Your task to perform on an android device: turn off javascript in the chrome app Image 0: 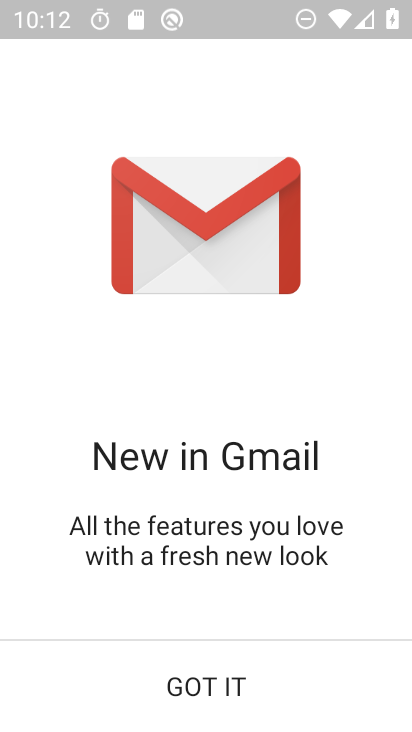
Step 0: click (275, 675)
Your task to perform on an android device: turn off javascript in the chrome app Image 1: 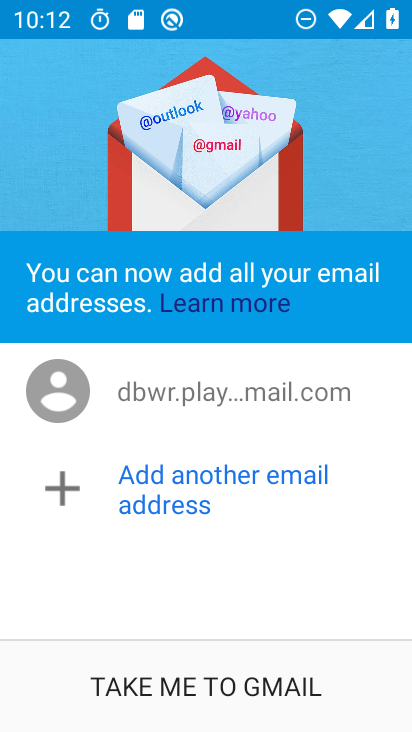
Step 1: press home button
Your task to perform on an android device: turn off javascript in the chrome app Image 2: 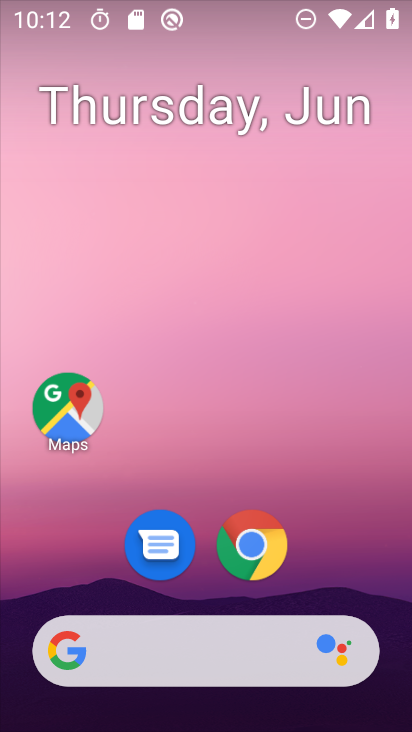
Step 2: click (250, 527)
Your task to perform on an android device: turn off javascript in the chrome app Image 3: 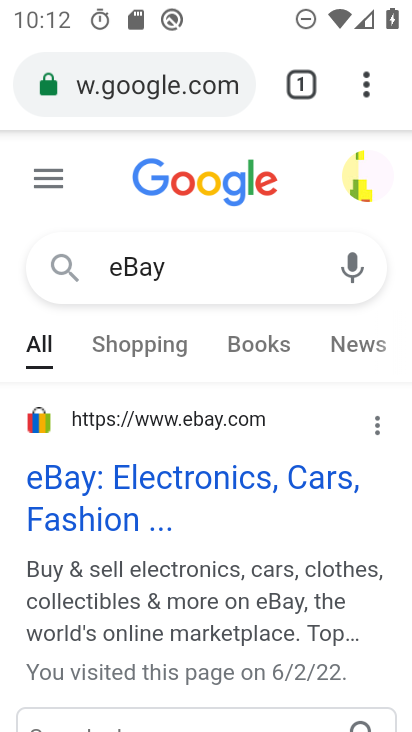
Step 3: click (368, 81)
Your task to perform on an android device: turn off javascript in the chrome app Image 4: 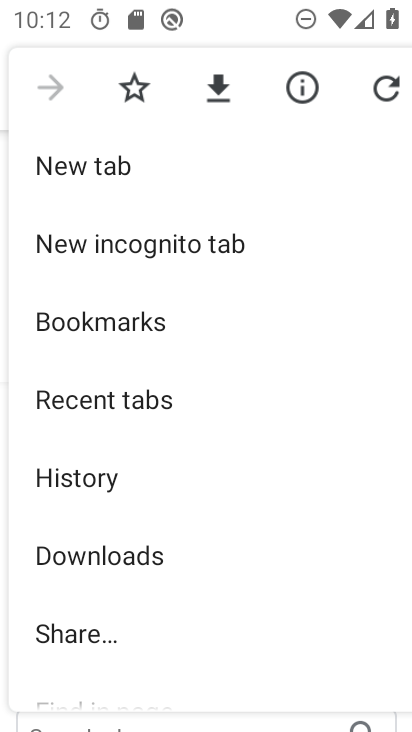
Step 4: drag from (164, 600) to (230, 178)
Your task to perform on an android device: turn off javascript in the chrome app Image 5: 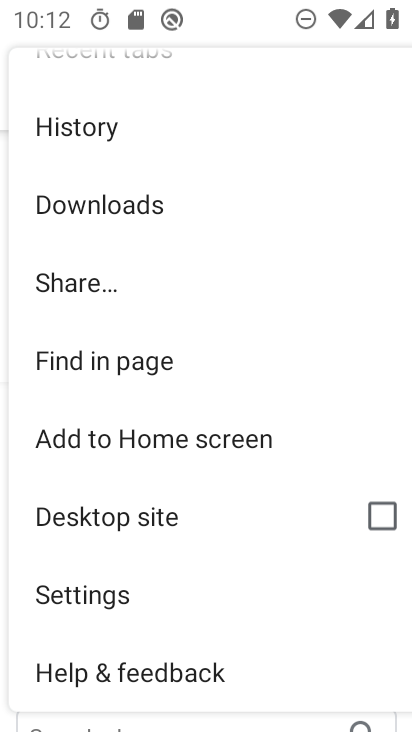
Step 5: click (111, 612)
Your task to perform on an android device: turn off javascript in the chrome app Image 6: 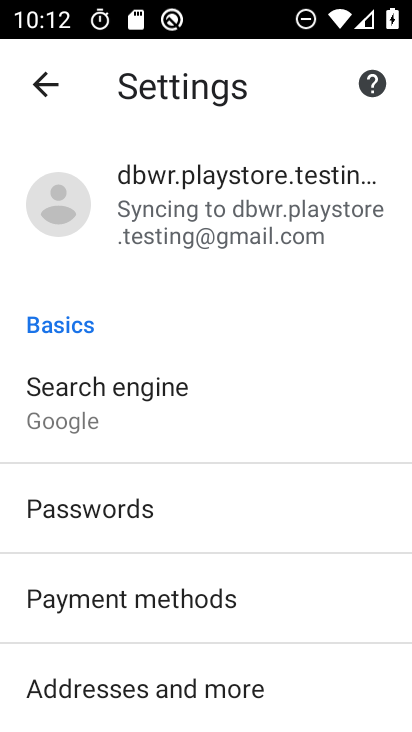
Step 6: drag from (181, 561) to (233, 141)
Your task to perform on an android device: turn off javascript in the chrome app Image 7: 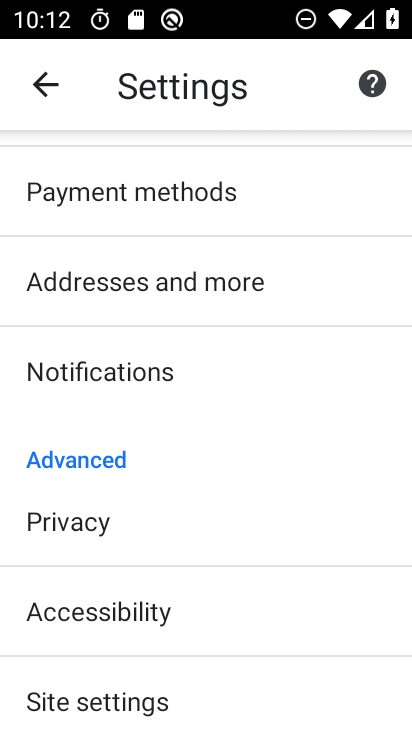
Step 7: drag from (144, 631) to (179, 398)
Your task to perform on an android device: turn off javascript in the chrome app Image 8: 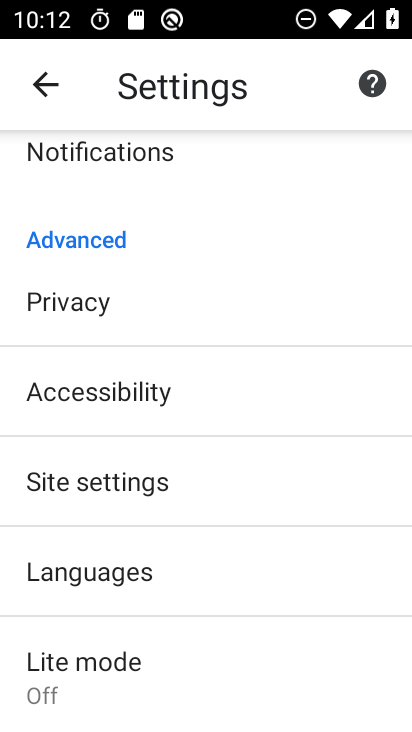
Step 8: click (126, 470)
Your task to perform on an android device: turn off javascript in the chrome app Image 9: 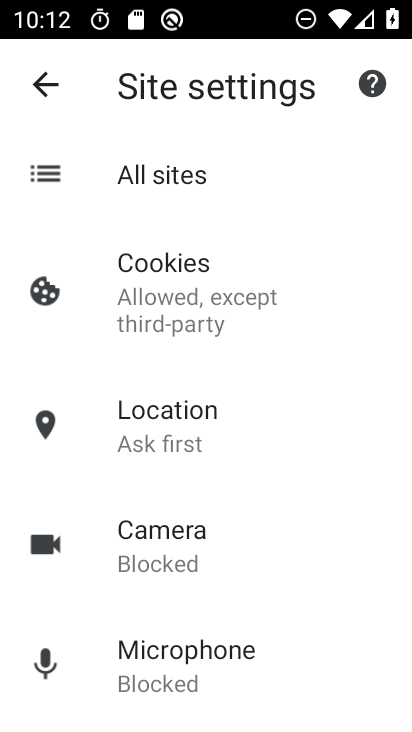
Step 9: drag from (210, 592) to (279, 194)
Your task to perform on an android device: turn off javascript in the chrome app Image 10: 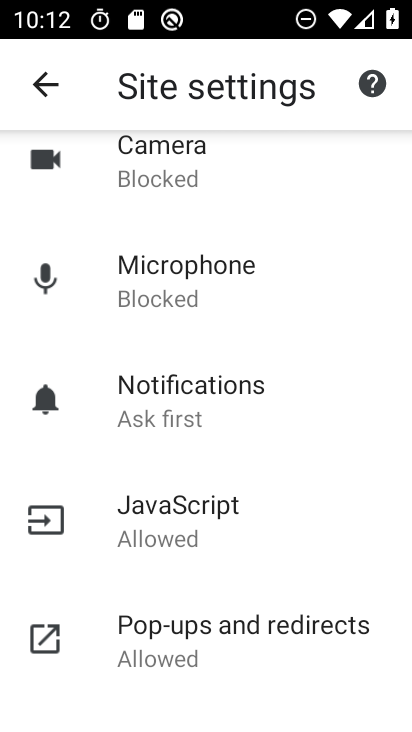
Step 10: click (204, 535)
Your task to perform on an android device: turn off javascript in the chrome app Image 11: 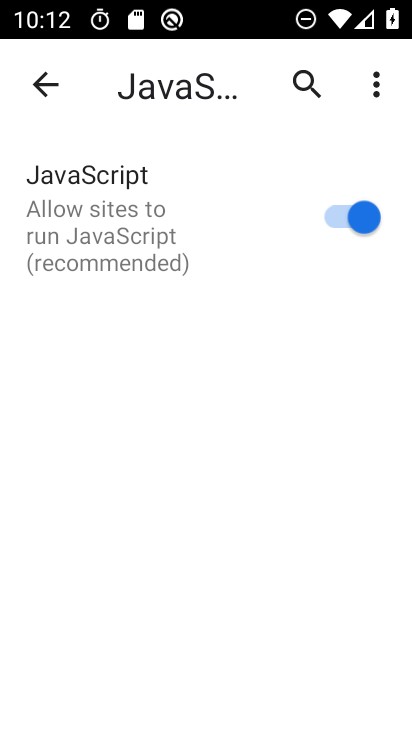
Step 11: click (315, 208)
Your task to perform on an android device: turn off javascript in the chrome app Image 12: 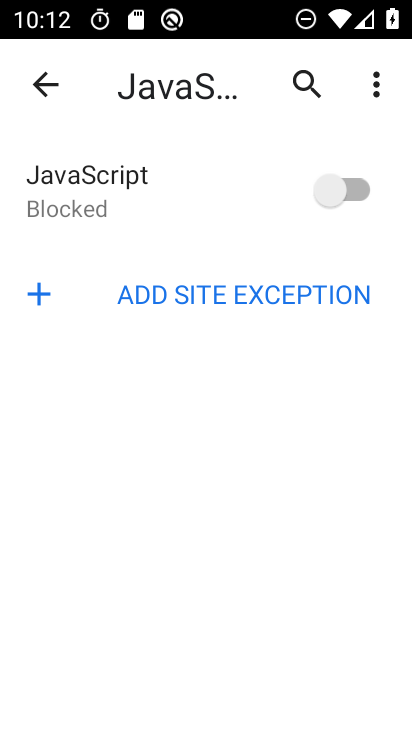
Step 12: task complete